Your task to perform on an android device: Search for vegetarian restaurants on Maps Image 0: 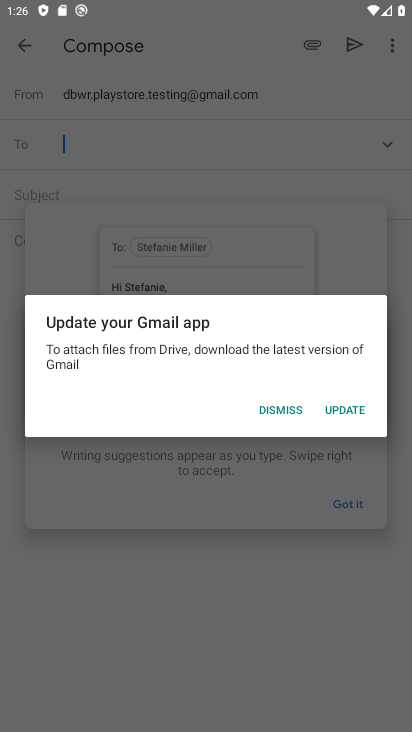
Step 0: press home button
Your task to perform on an android device: Search for vegetarian restaurants on Maps Image 1: 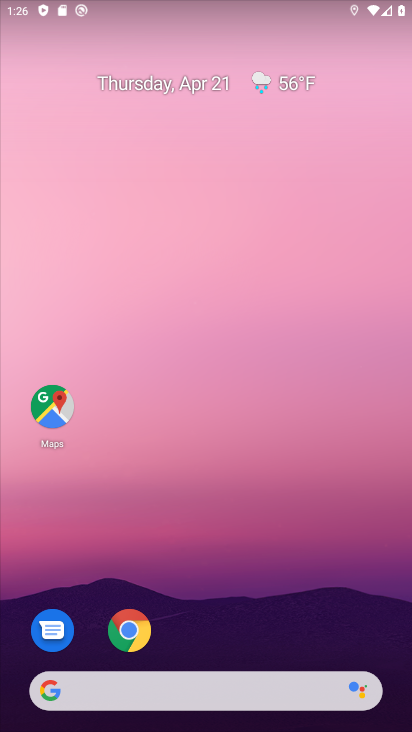
Step 1: click (65, 402)
Your task to perform on an android device: Search for vegetarian restaurants on Maps Image 2: 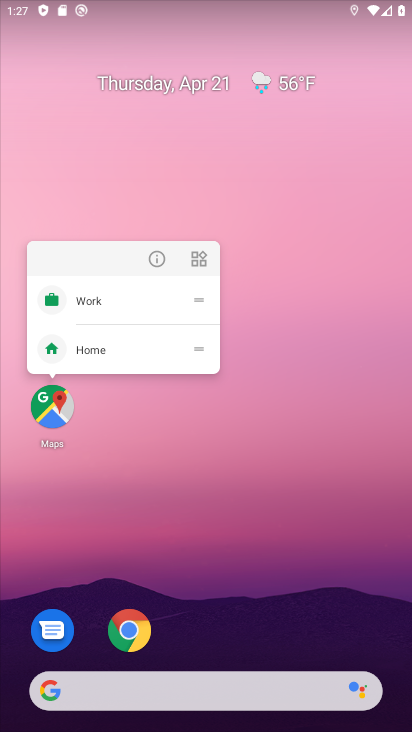
Step 2: click (57, 428)
Your task to perform on an android device: Search for vegetarian restaurants on Maps Image 3: 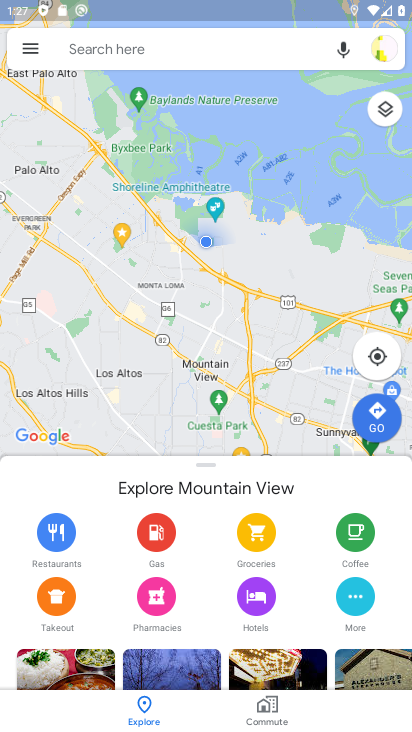
Step 3: click (154, 43)
Your task to perform on an android device: Search for vegetarian restaurants on Maps Image 4: 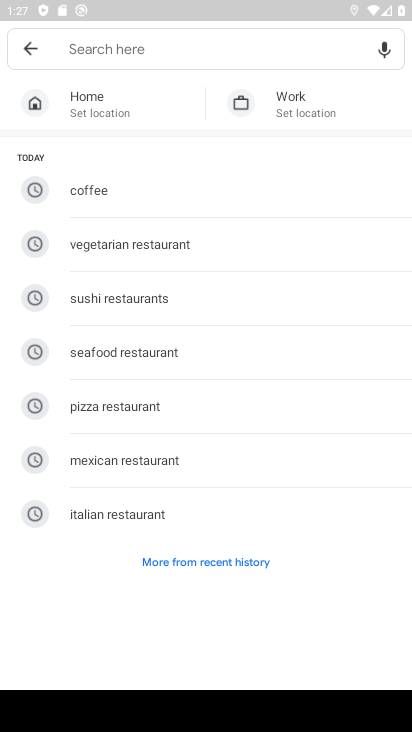
Step 4: click (154, 242)
Your task to perform on an android device: Search for vegetarian restaurants on Maps Image 5: 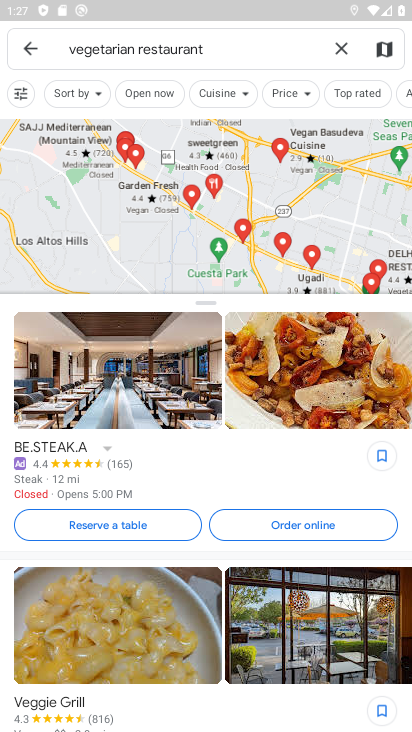
Step 5: task complete